Your task to perform on an android device: Open the phone app and click the voicemail tab. Image 0: 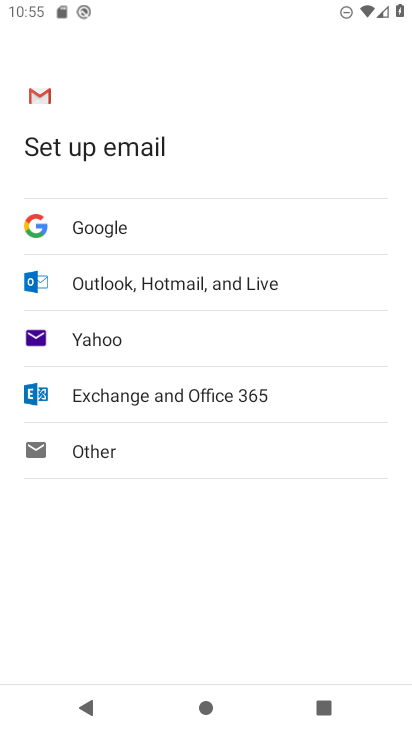
Step 0: press home button
Your task to perform on an android device: Open the phone app and click the voicemail tab. Image 1: 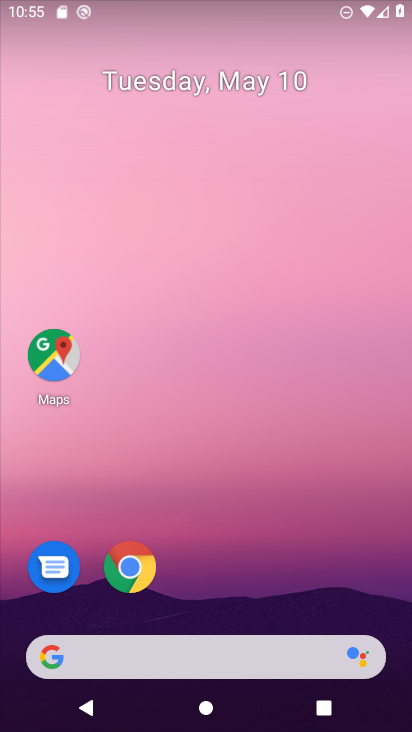
Step 1: drag from (286, 620) to (334, 221)
Your task to perform on an android device: Open the phone app and click the voicemail tab. Image 2: 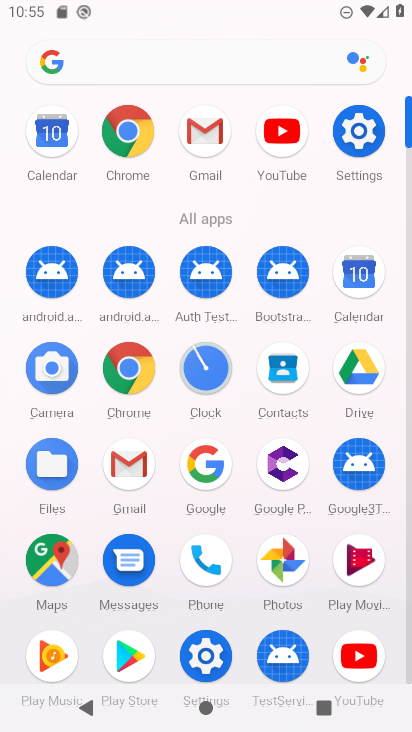
Step 2: drag from (136, 644) to (134, 238)
Your task to perform on an android device: Open the phone app and click the voicemail tab. Image 3: 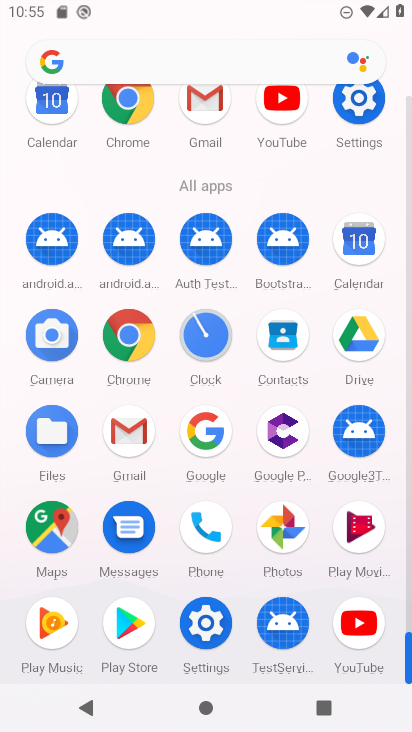
Step 3: click (211, 510)
Your task to perform on an android device: Open the phone app and click the voicemail tab. Image 4: 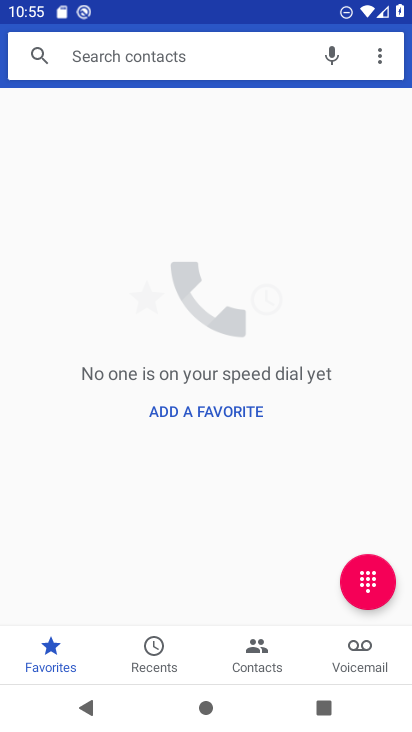
Step 4: click (367, 664)
Your task to perform on an android device: Open the phone app and click the voicemail tab. Image 5: 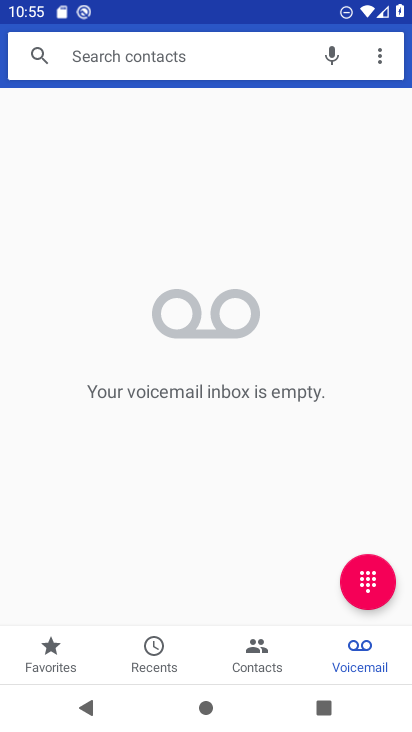
Step 5: task complete